Your task to perform on an android device: empty trash in the gmail app Image 0: 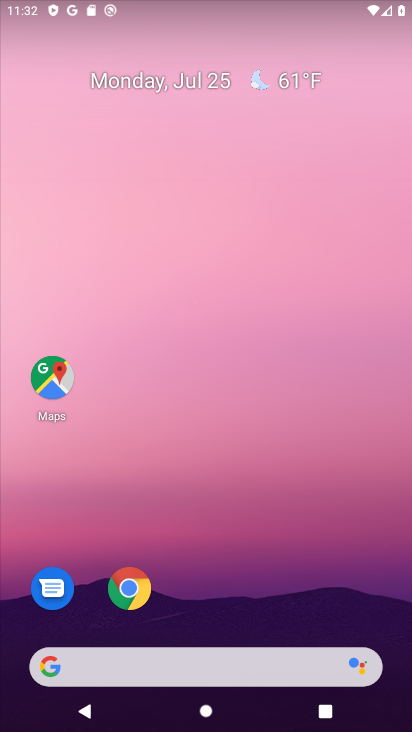
Step 0: press home button
Your task to perform on an android device: empty trash in the gmail app Image 1: 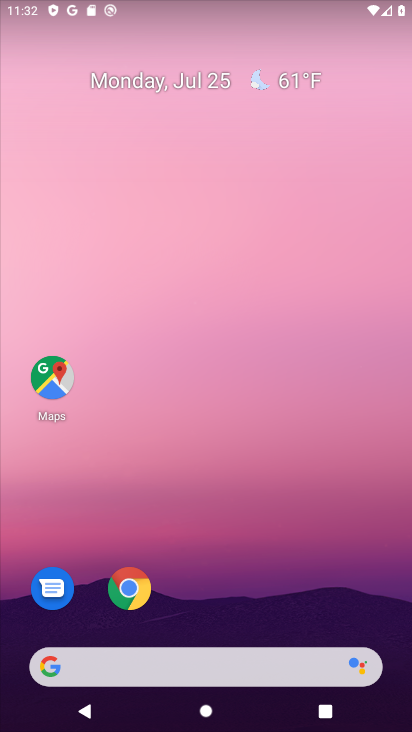
Step 1: drag from (215, 623) to (260, 8)
Your task to perform on an android device: empty trash in the gmail app Image 2: 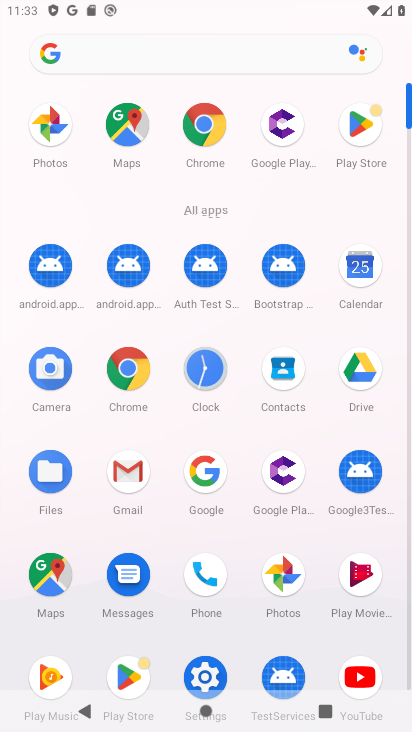
Step 2: click (122, 459)
Your task to perform on an android device: empty trash in the gmail app Image 3: 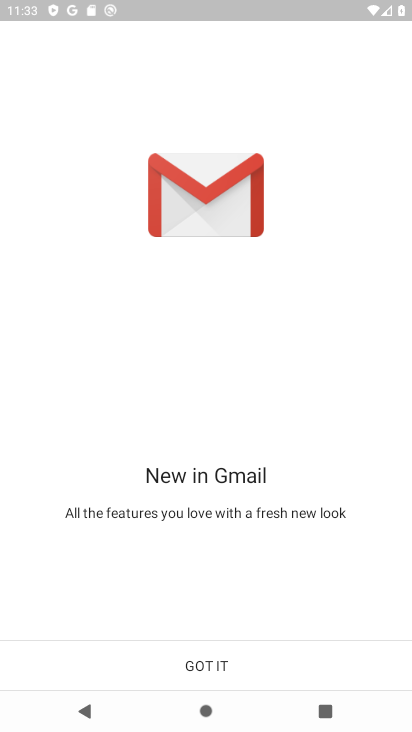
Step 3: click (210, 671)
Your task to perform on an android device: empty trash in the gmail app Image 4: 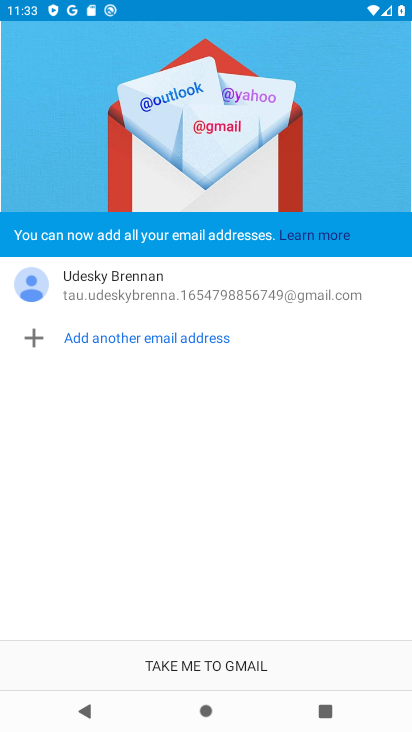
Step 4: click (201, 663)
Your task to perform on an android device: empty trash in the gmail app Image 5: 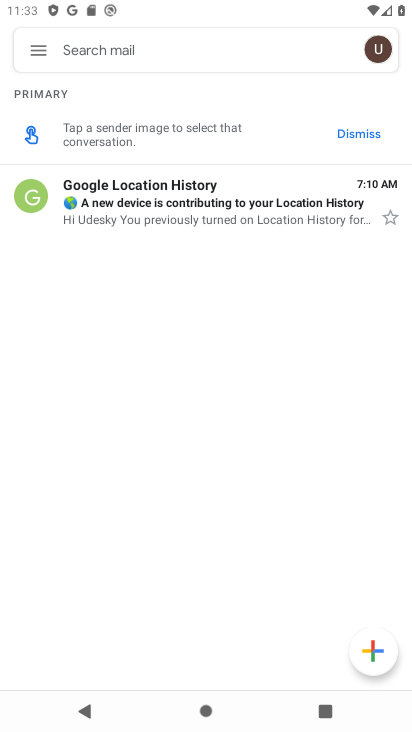
Step 5: click (42, 47)
Your task to perform on an android device: empty trash in the gmail app Image 6: 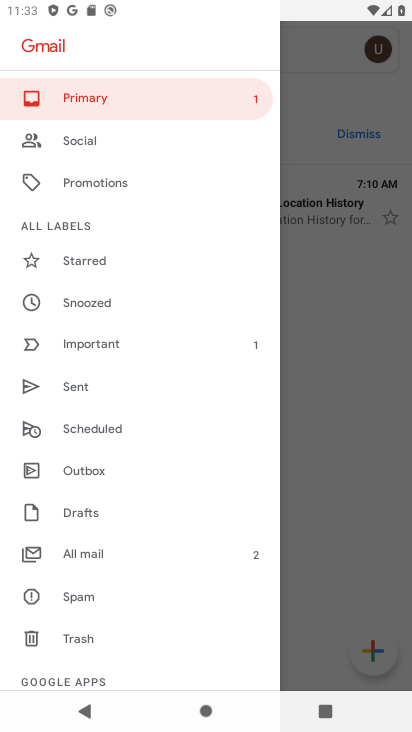
Step 6: click (96, 639)
Your task to perform on an android device: empty trash in the gmail app Image 7: 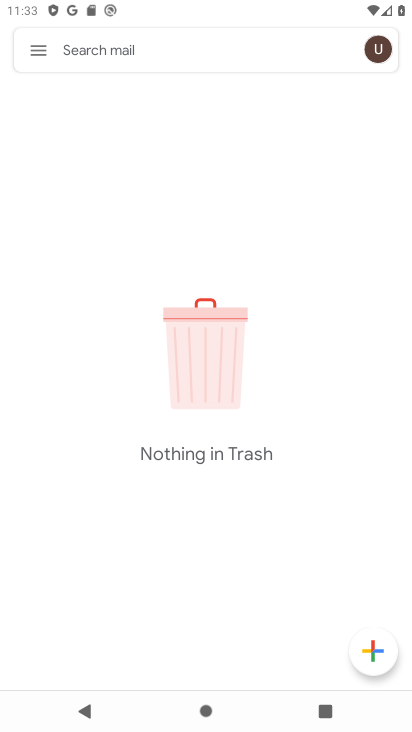
Step 7: task complete